Your task to perform on an android device: change notifications settings Image 0: 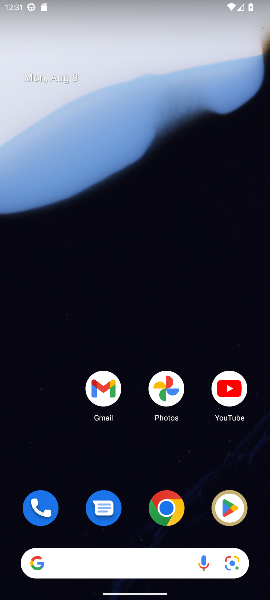
Step 0: drag from (144, 470) to (193, 119)
Your task to perform on an android device: change notifications settings Image 1: 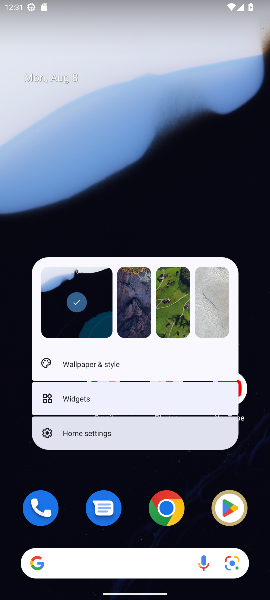
Step 1: click (258, 223)
Your task to perform on an android device: change notifications settings Image 2: 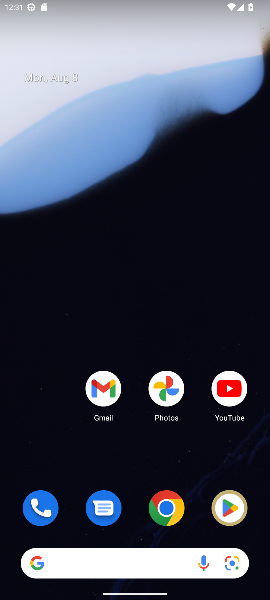
Step 2: drag from (101, 456) to (125, 257)
Your task to perform on an android device: change notifications settings Image 3: 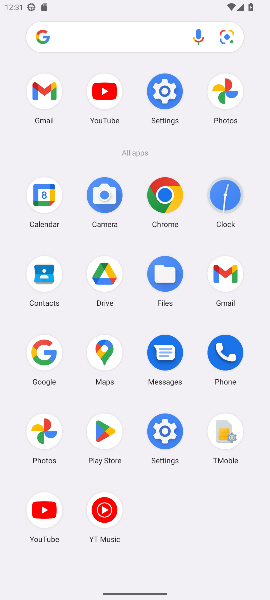
Step 3: click (169, 442)
Your task to perform on an android device: change notifications settings Image 4: 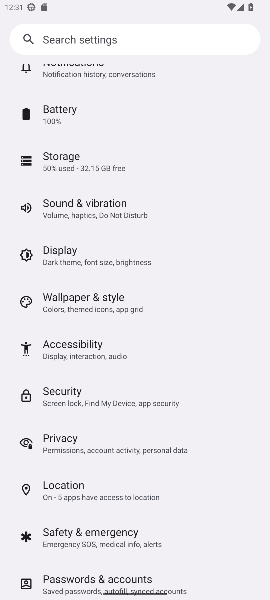
Step 4: drag from (132, 143) to (123, 325)
Your task to perform on an android device: change notifications settings Image 5: 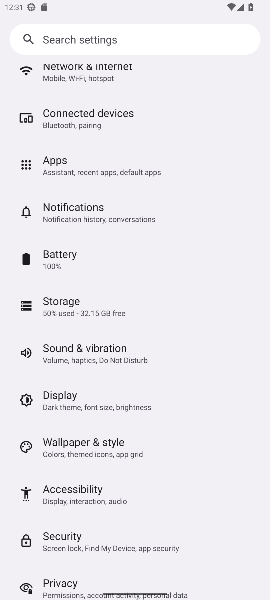
Step 5: click (102, 211)
Your task to perform on an android device: change notifications settings Image 6: 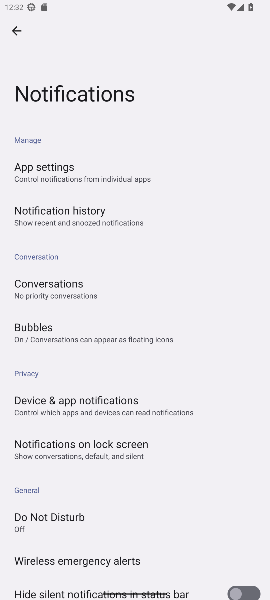
Step 6: drag from (138, 376) to (119, 249)
Your task to perform on an android device: change notifications settings Image 7: 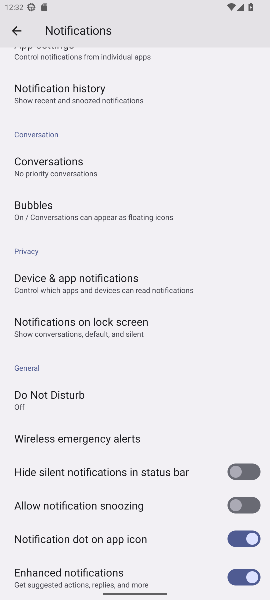
Step 7: click (241, 504)
Your task to perform on an android device: change notifications settings Image 8: 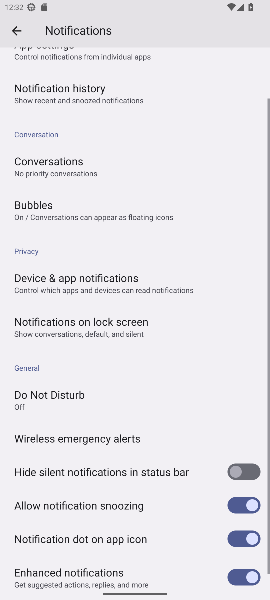
Step 8: click (237, 471)
Your task to perform on an android device: change notifications settings Image 9: 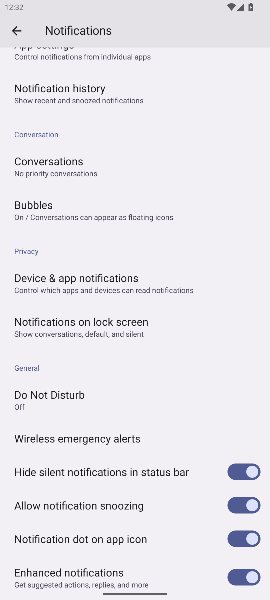
Step 9: click (241, 540)
Your task to perform on an android device: change notifications settings Image 10: 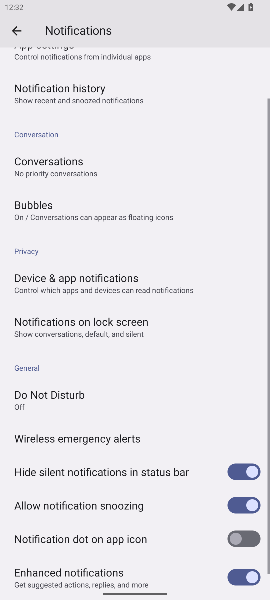
Step 10: click (246, 585)
Your task to perform on an android device: change notifications settings Image 11: 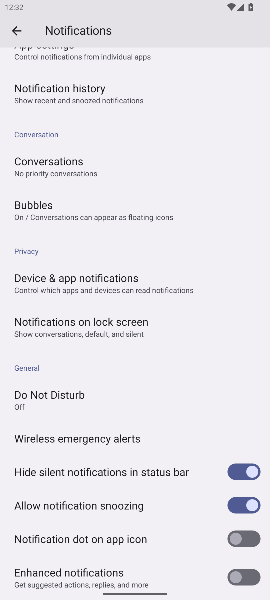
Step 11: task complete